Your task to perform on an android device: turn on improve location accuracy Image 0: 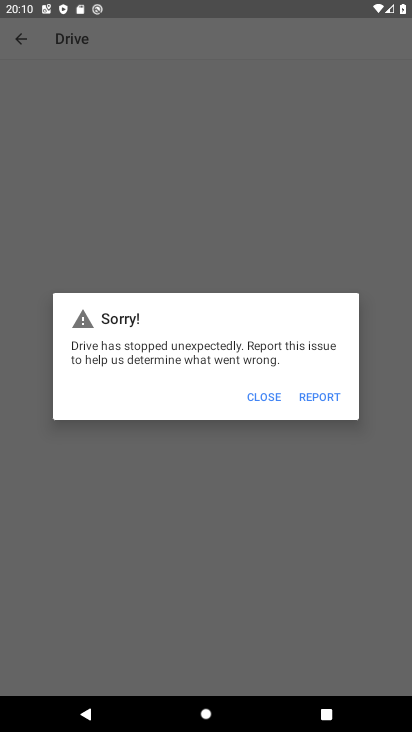
Step 0: press home button
Your task to perform on an android device: turn on improve location accuracy Image 1: 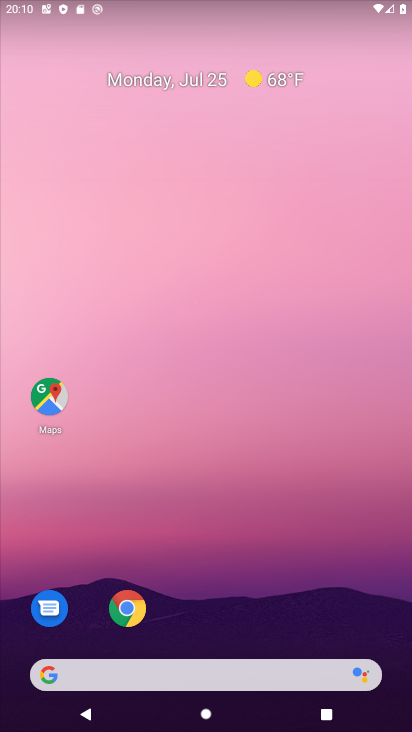
Step 1: drag from (240, 653) to (188, 2)
Your task to perform on an android device: turn on improve location accuracy Image 2: 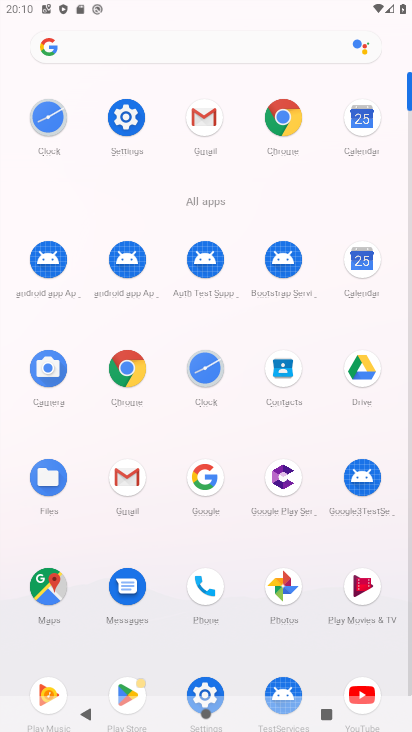
Step 2: click (121, 134)
Your task to perform on an android device: turn on improve location accuracy Image 3: 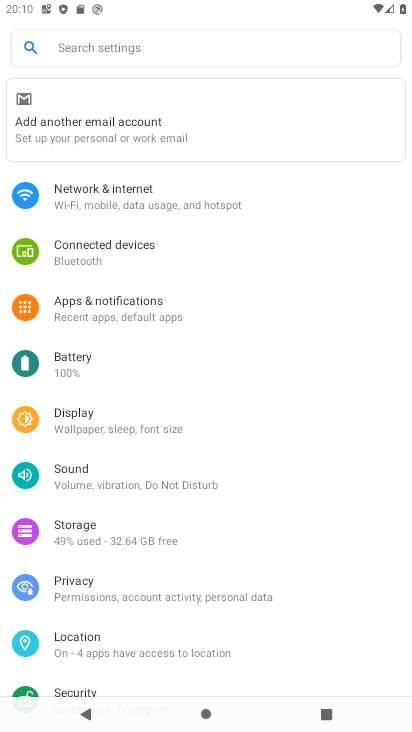
Step 3: click (95, 647)
Your task to perform on an android device: turn on improve location accuracy Image 4: 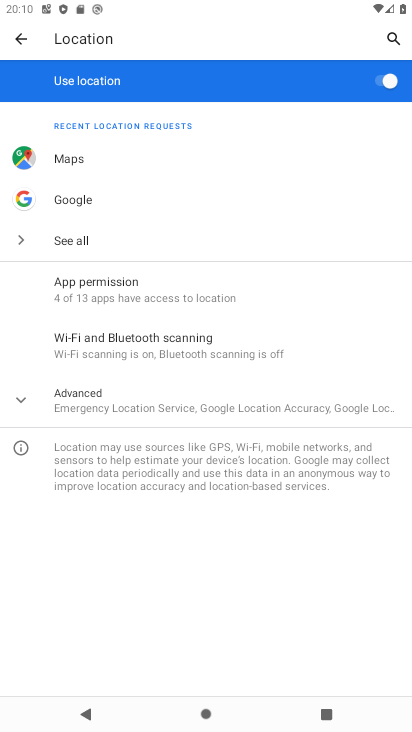
Step 4: click (14, 403)
Your task to perform on an android device: turn on improve location accuracy Image 5: 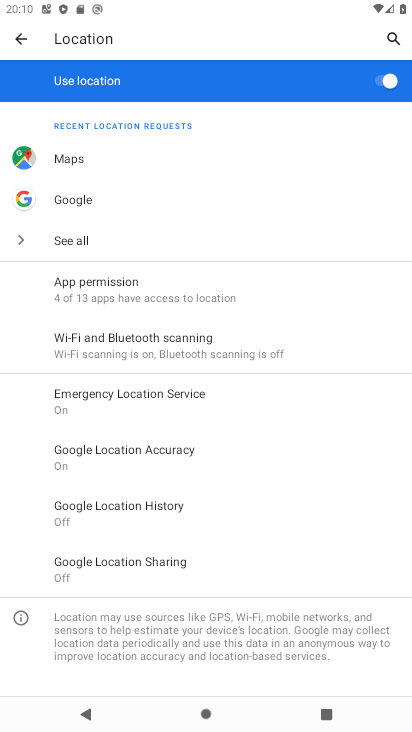
Step 5: click (96, 453)
Your task to perform on an android device: turn on improve location accuracy Image 6: 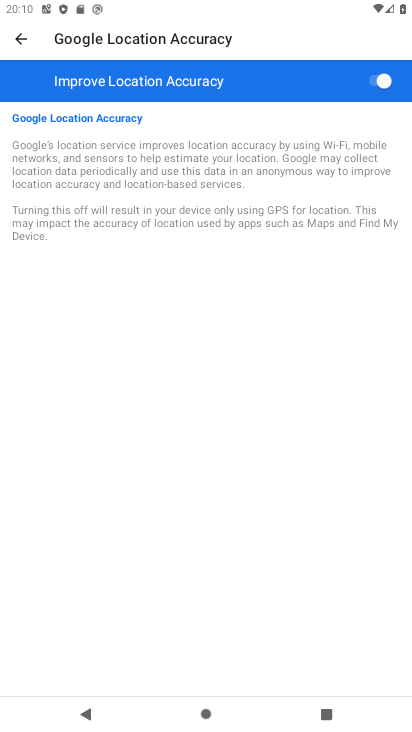
Step 6: task complete